Your task to perform on an android device: Go to Google maps Image 0: 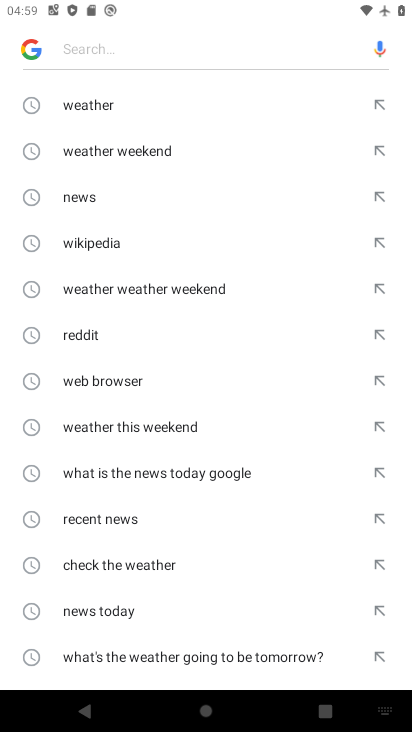
Step 0: press home button
Your task to perform on an android device: Go to Google maps Image 1: 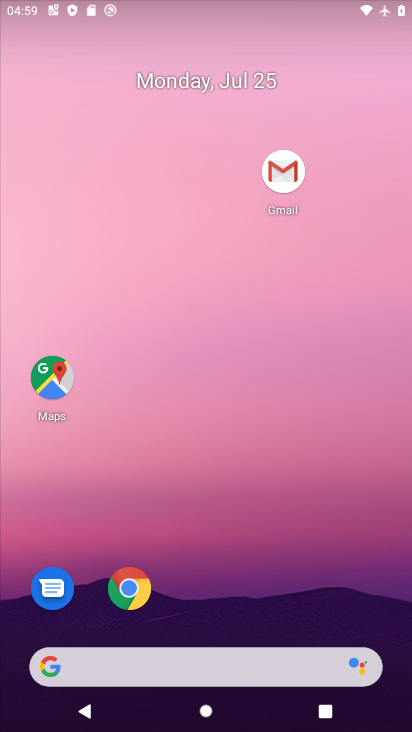
Step 1: drag from (298, 544) to (240, 64)
Your task to perform on an android device: Go to Google maps Image 2: 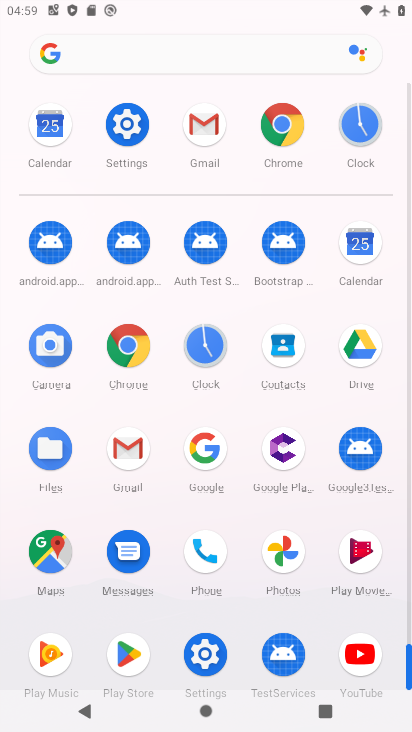
Step 2: click (52, 578)
Your task to perform on an android device: Go to Google maps Image 3: 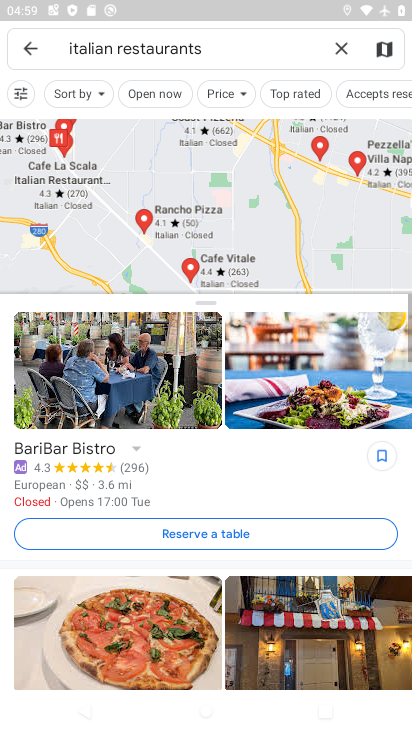
Step 3: task complete